Your task to perform on an android device: change the clock display to show seconds Image 0: 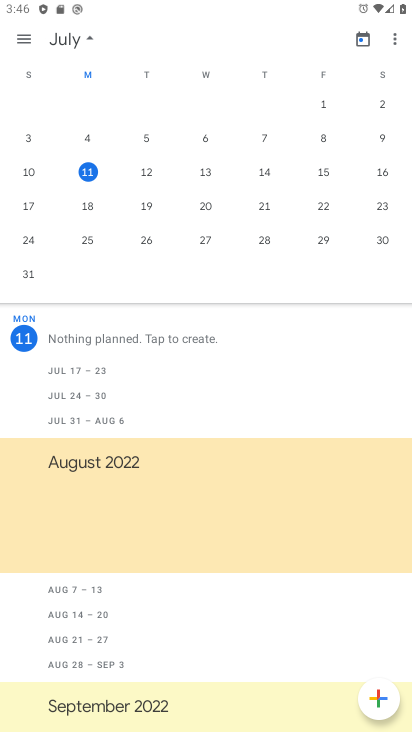
Step 0: press home button
Your task to perform on an android device: change the clock display to show seconds Image 1: 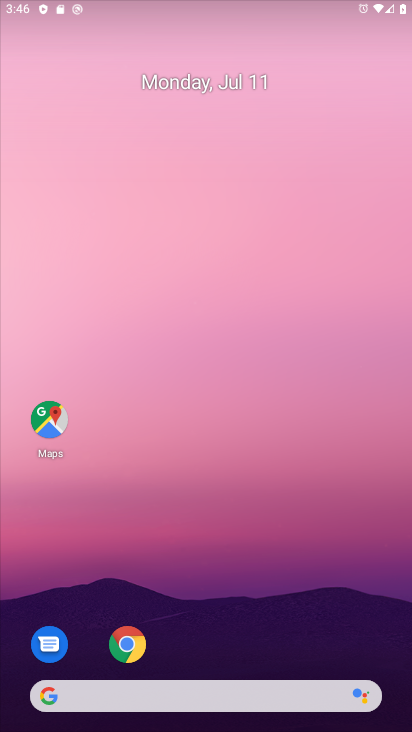
Step 1: drag from (207, 692) to (329, 16)
Your task to perform on an android device: change the clock display to show seconds Image 2: 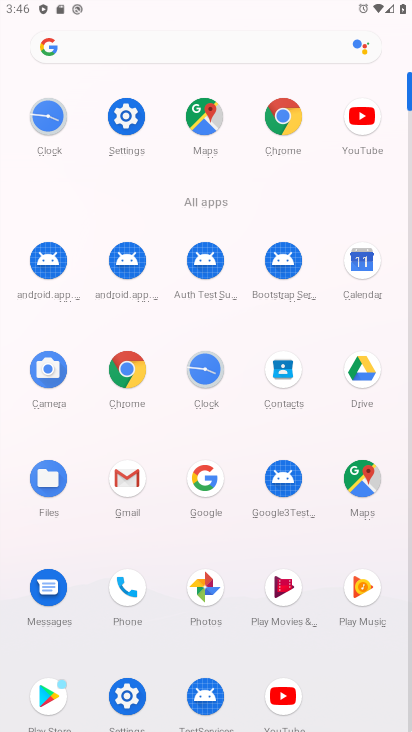
Step 2: click (202, 375)
Your task to perform on an android device: change the clock display to show seconds Image 3: 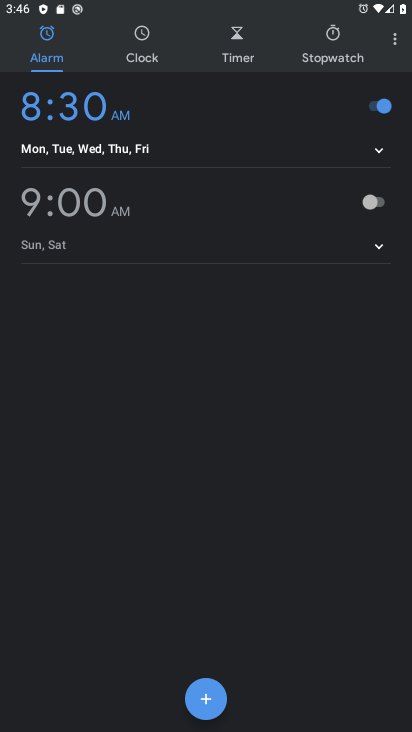
Step 3: click (392, 50)
Your task to perform on an android device: change the clock display to show seconds Image 4: 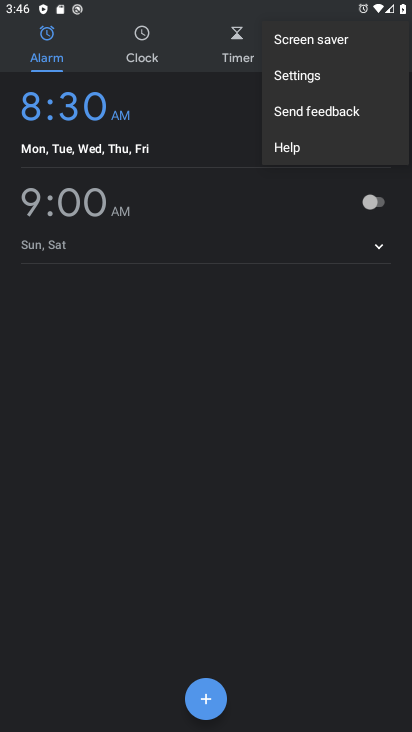
Step 4: click (333, 84)
Your task to perform on an android device: change the clock display to show seconds Image 5: 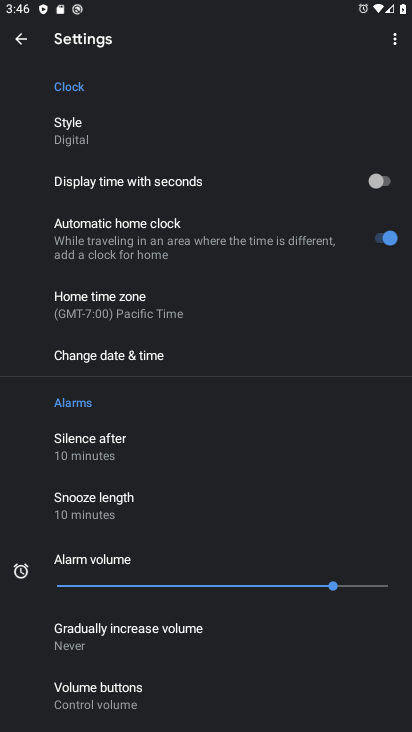
Step 5: click (386, 180)
Your task to perform on an android device: change the clock display to show seconds Image 6: 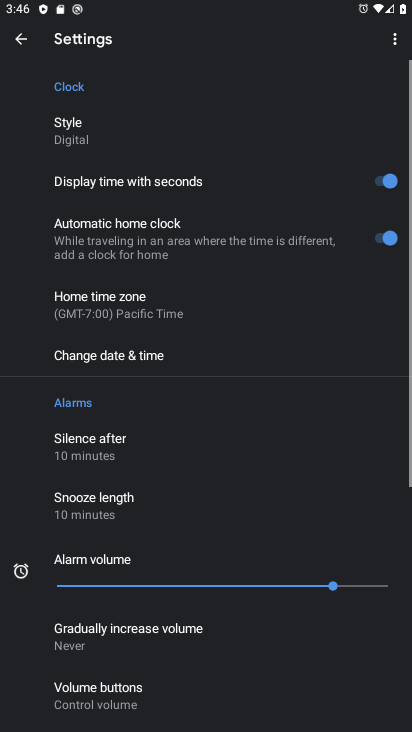
Step 6: task complete